Your task to perform on an android device: add a contact in the contacts app Image 0: 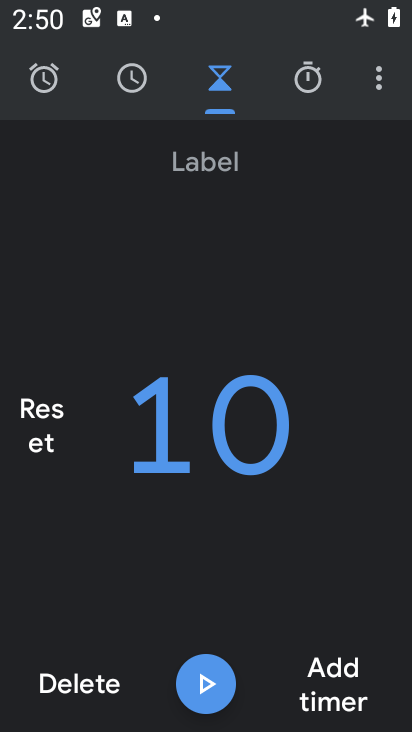
Step 0: press home button
Your task to perform on an android device: add a contact in the contacts app Image 1: 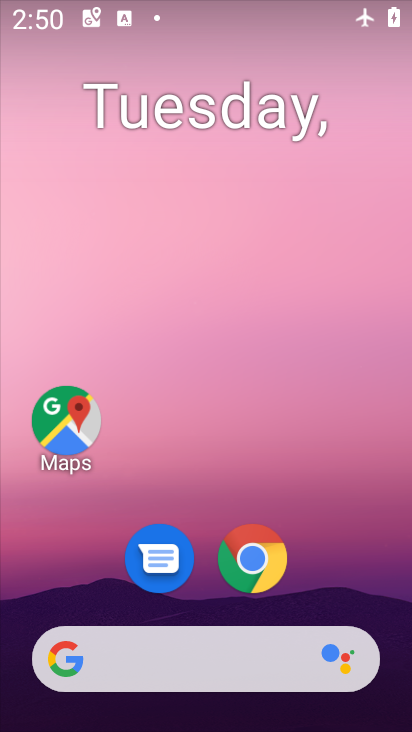
Step 1: drag from (211, 592) to (208, 121)
Your task to perform on an android device: add a contact in the contacts app Image 2: 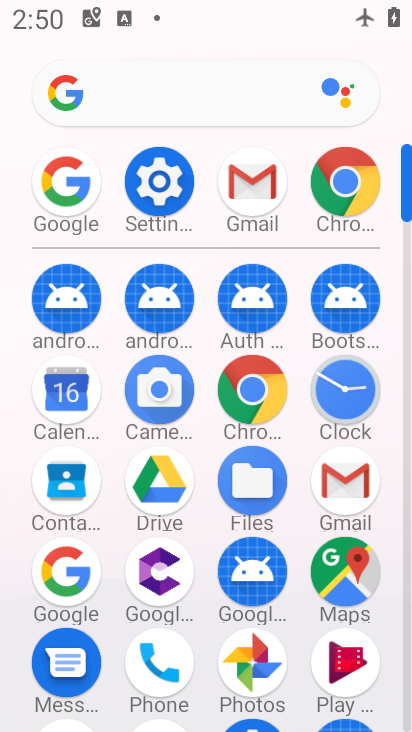
Step 2: click (79, 489)
Your task to perform on an android device: add a contact in the contacts app Image 3: 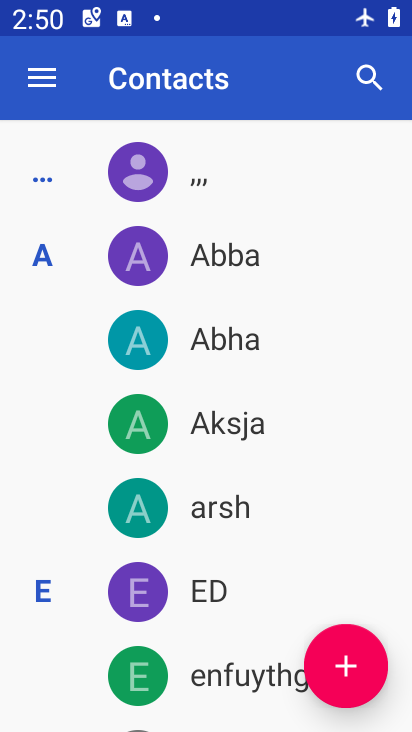
Step 3: click (350, 664)
Your task to perform on an android device: add a contact in the contacts app Image 4: 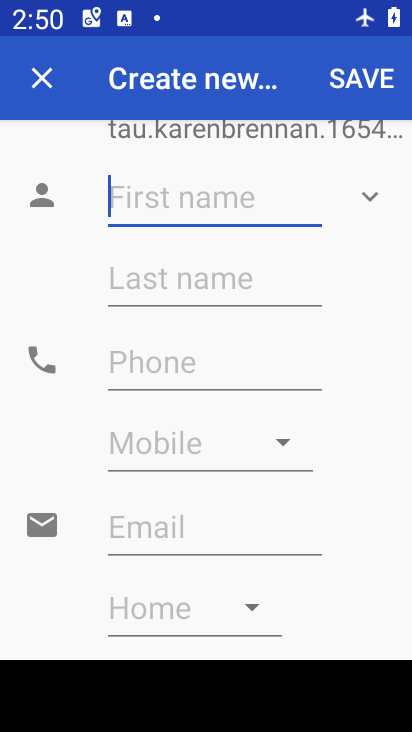
Step 4: type "gdgg"
Your task to perform on an android device: add a contact in the contacts app Image 5: 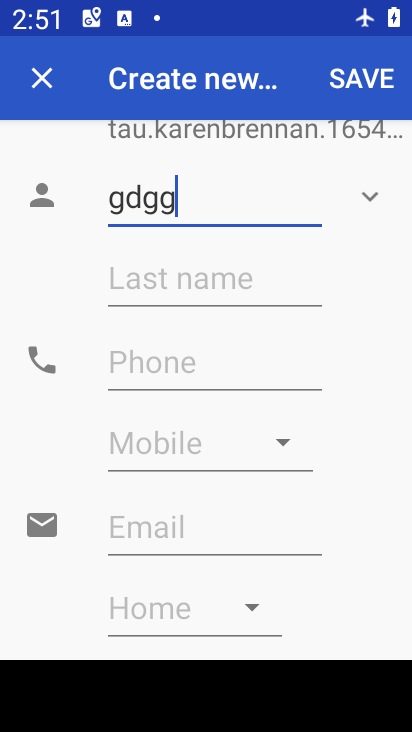
Step 5: type ""
Your task to perform on an android device: add a contact in the contacts app Image 6: 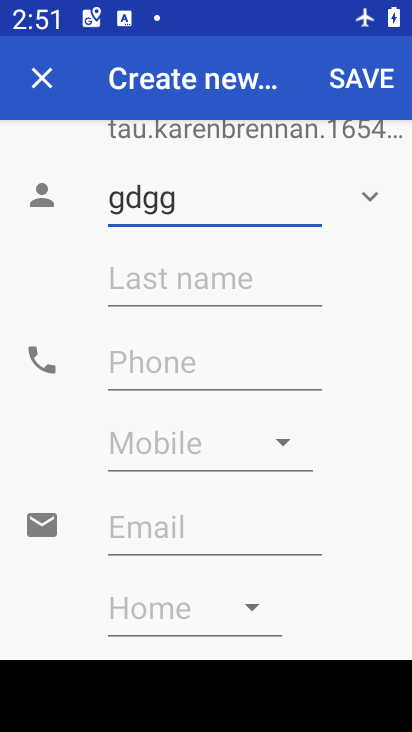
Step 6: click (144, 374)
Your task to perform on an android device: add a contact in the contacts app Image 7: 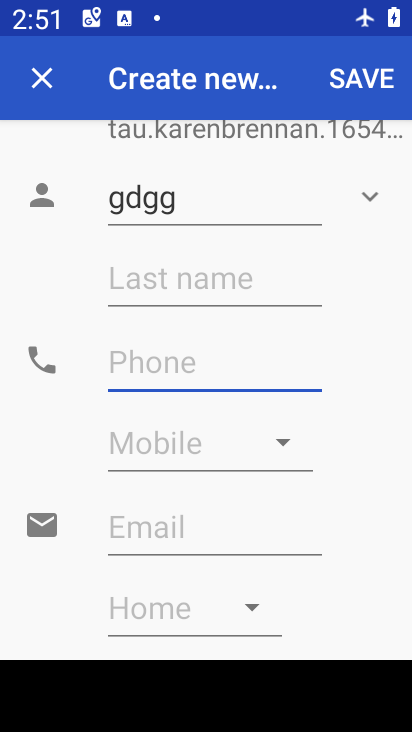
Step 7: type "7635745747547"
Your task to perform on an android device: add a contact in the contacts app Image 8: 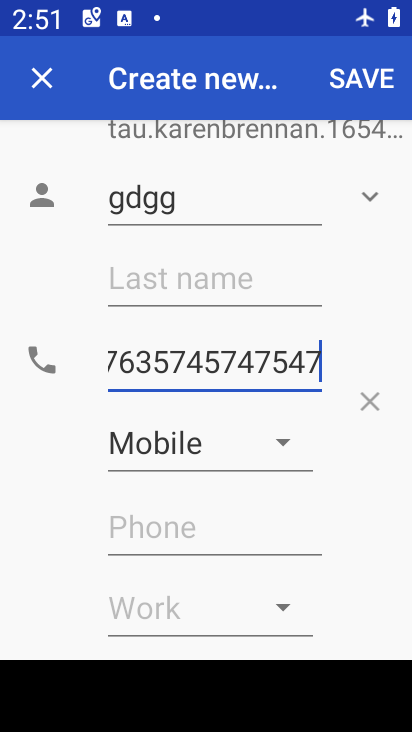
Step 8: type ""
Your task to perform on an android device: add a contact in the contacts app Image 9: 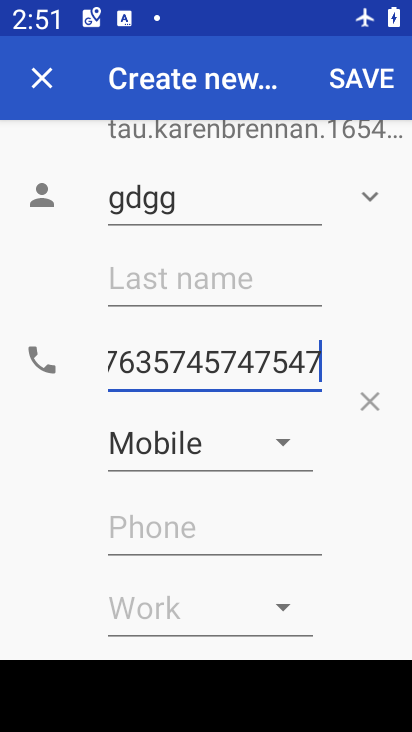
Step 9: click (347, 88)
Your task to perform on an android device: add a contact in the contacts app Image 10: 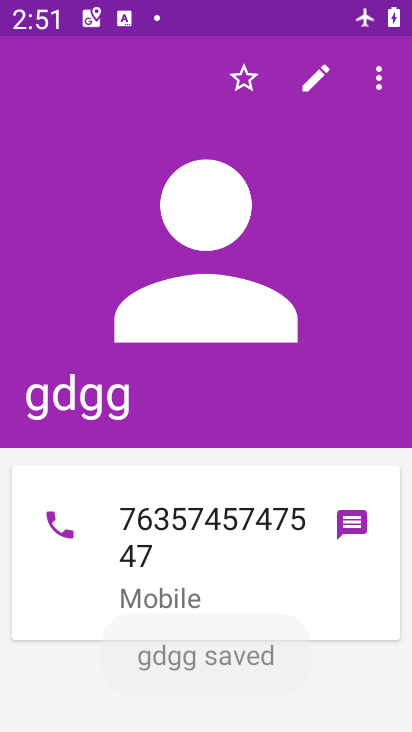
Step 10: task complete